Your task to perform on an android device: Check the news Image 0: 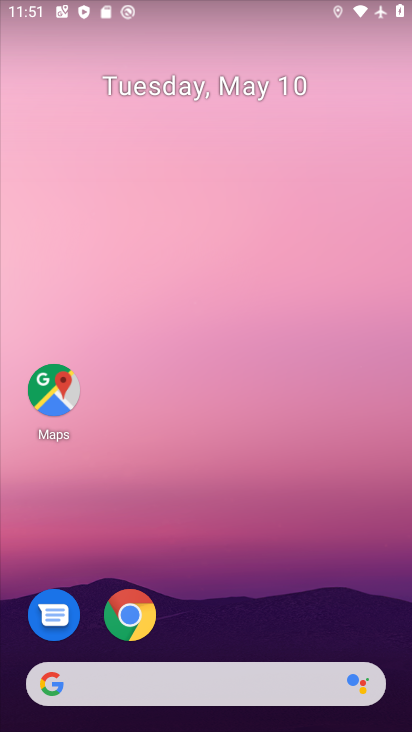
Step 0: drag from (246, 519) to (184, 0)
Your task to perform on an android device: Check the news Image 1: 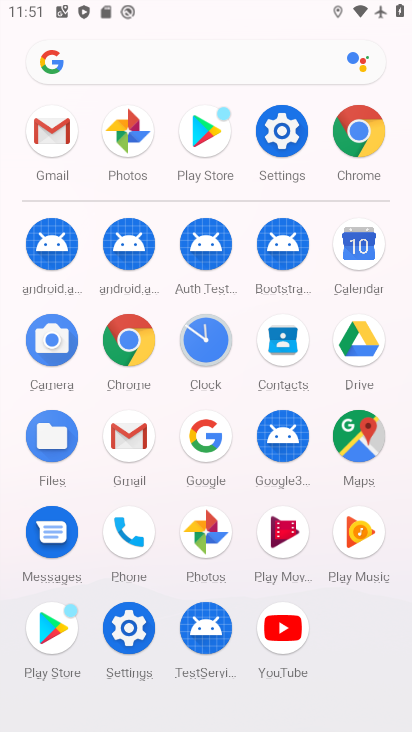
Step 1: click (128, 335)
Your task to perform on an android device: Check the news Image 2: 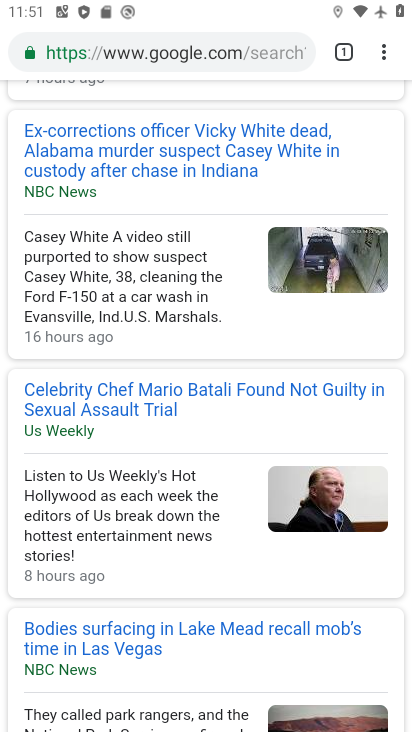
Step 2: click (186, 46)
Your task to perform on an android device: Check the news Image 3: 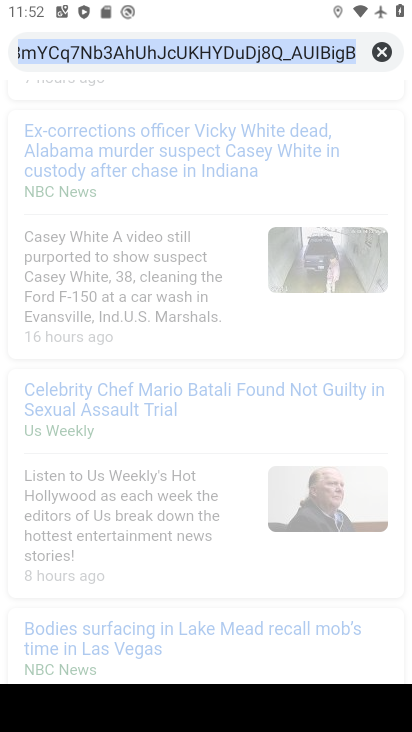
Step 3: click (382, 54)
Your task to perform on an android device: Check the news Image 4: 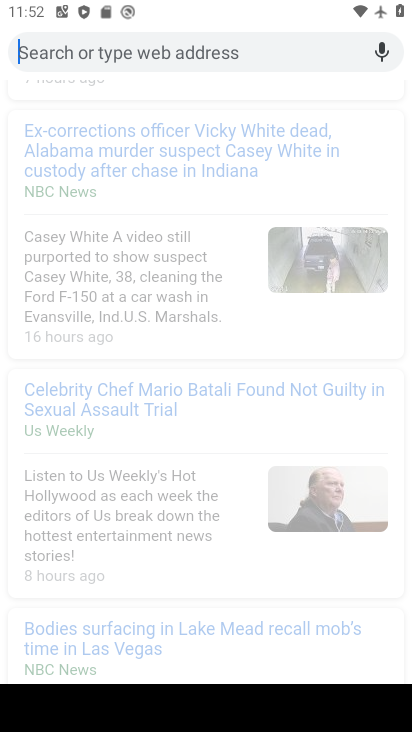
Step 4: type "Check the news"
Your task to perform on an android device: Check the news Image 5: 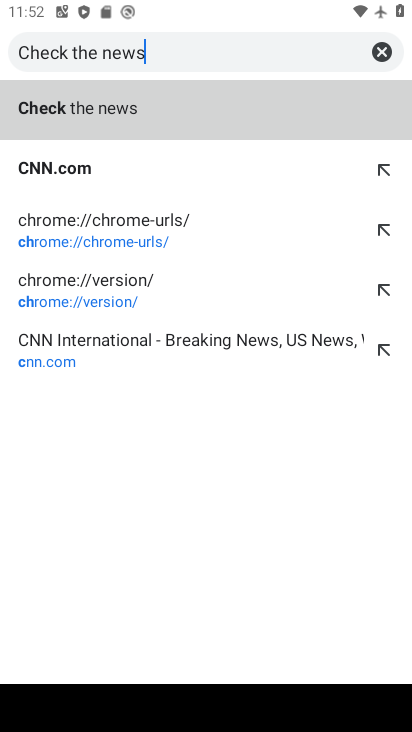
Step 5: type ""
Your task to perform on an android device: Check the news Image 6: 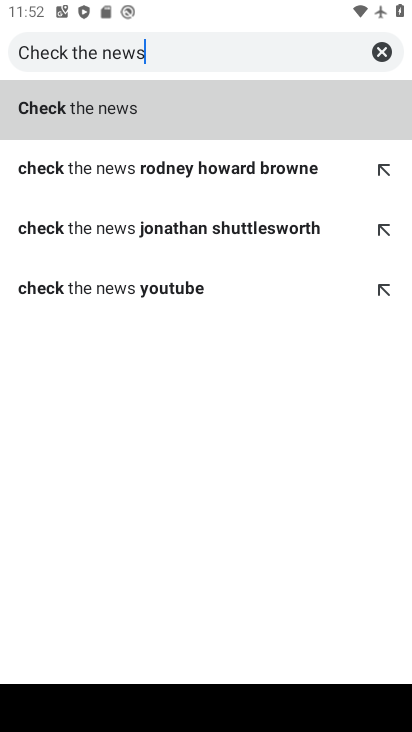
Step 6: click (111, 111)
Your task to perform on an android device: Check the news Image 7: 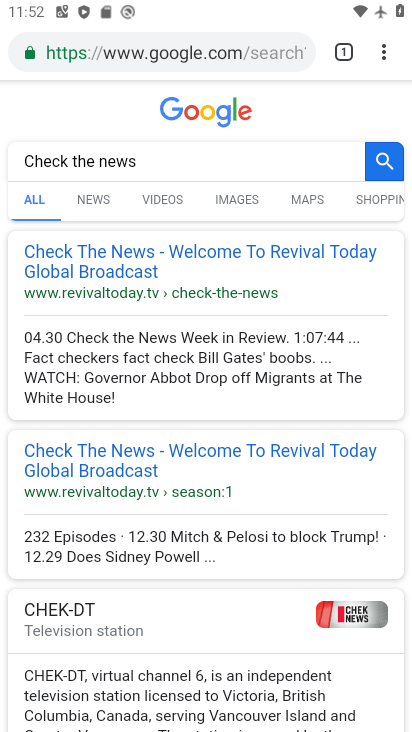
Step 7: click (101, 201)
Your task to perform on an android device: Check the news Image 8: 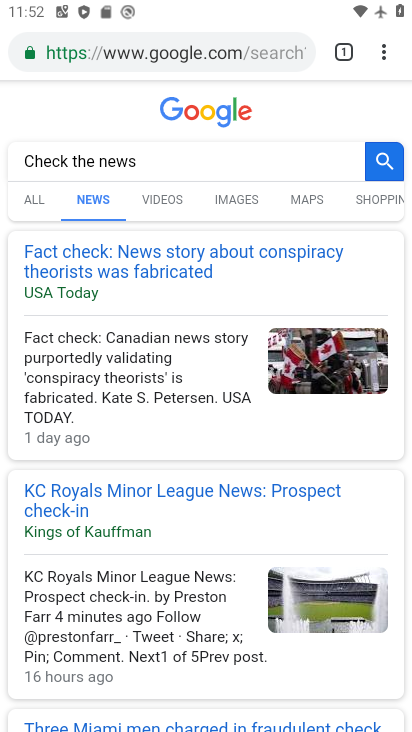
Step 8: task complete